Your task to perform on an android device: visit the assistant section in the google photos Image 0: 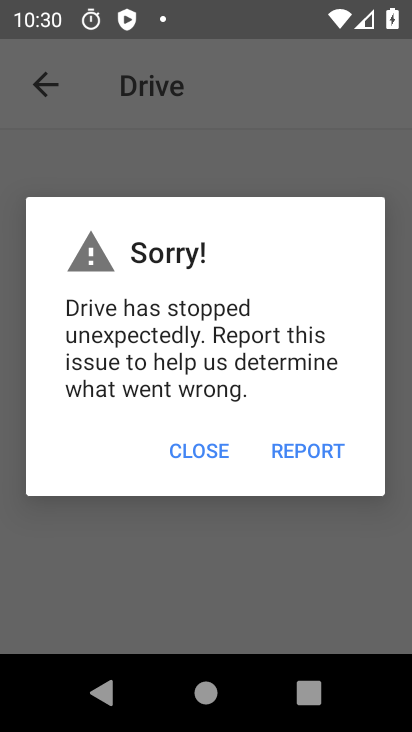
Step 0: press home button
Your task to perform on an android device: visit the assistant section in the google photos Image 1: 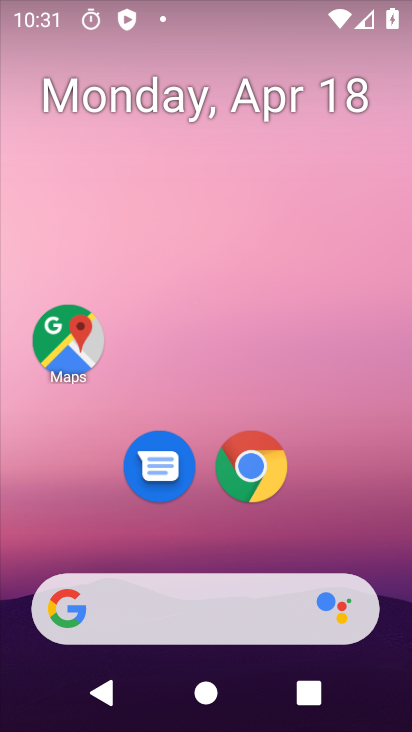
Step 1: drag from (211, 563) to (238, 223)
Your task to perform on an android device: visit the assistant section in the google photos Image 2: 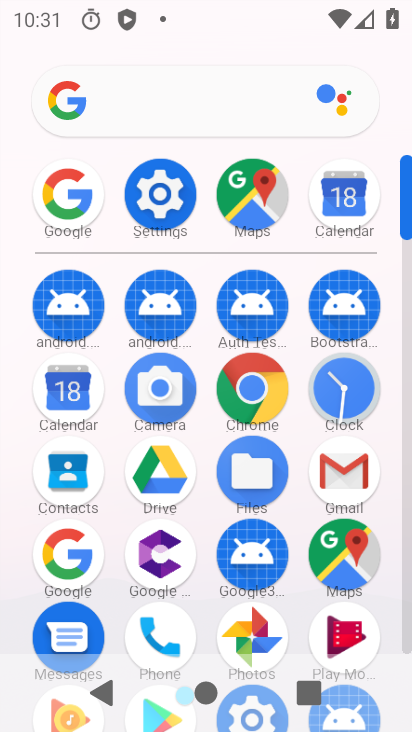
Step 2: click (265, 626)
Your task to perform on an android device: visit the assistant section in the google photos Image 3: 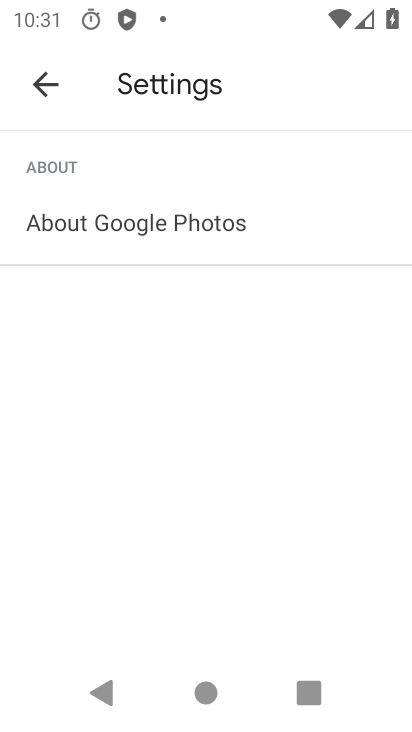
Step 3: click (38, 80)
Your task to perform on an android device: visit the assistant section in the google photos Image 4: 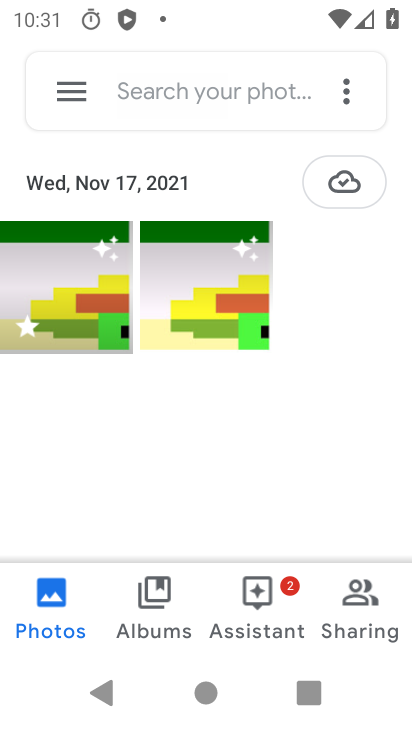
Step 4: click (247, 614)
Your task to perform on an android device: visit the assistant section in the google photos Image 5: 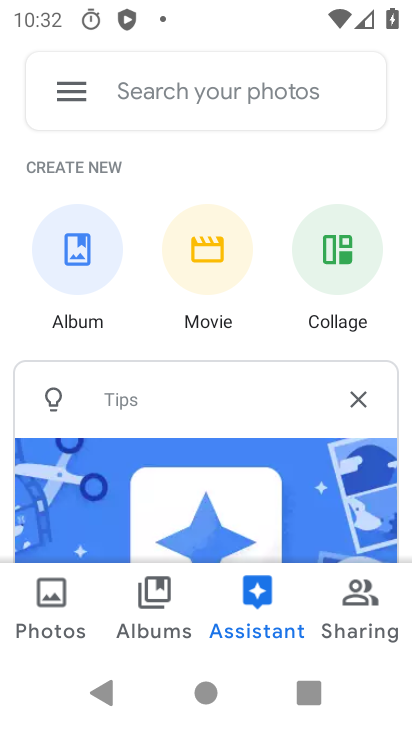
Step 5: click (354, 408)
Your task to perform on an android device: visit the assistant section in the google photos Image 6: 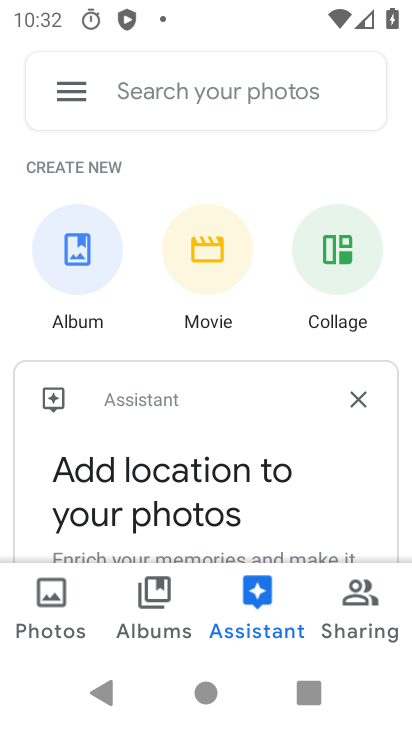
Step 6: task complete